Your task to perform on an android device: turn pop-ups on in chrome Image 0: 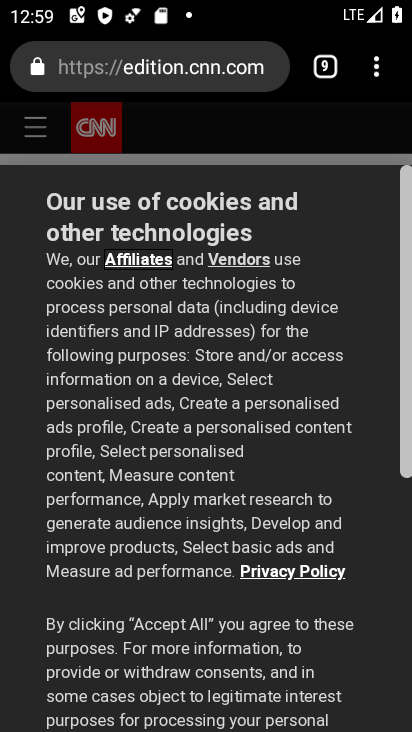
Step 0: press home button
Your task to perform on an android device: turn pop-ups on in chrome Image 1: 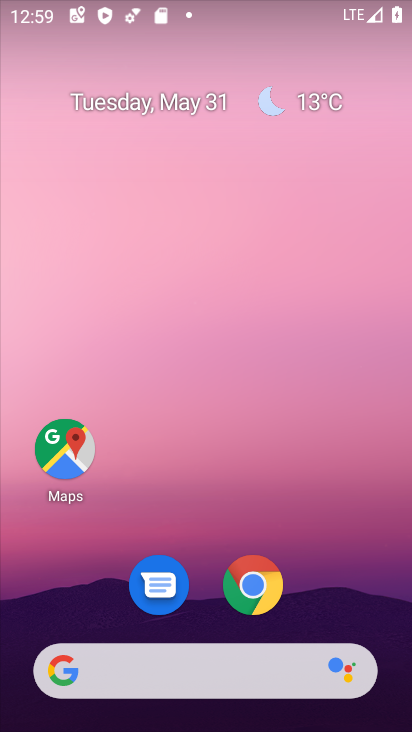
Step 1: click (259, 579)
Your task to perform on an android device: turn pop-ups on in chrome Image 2: 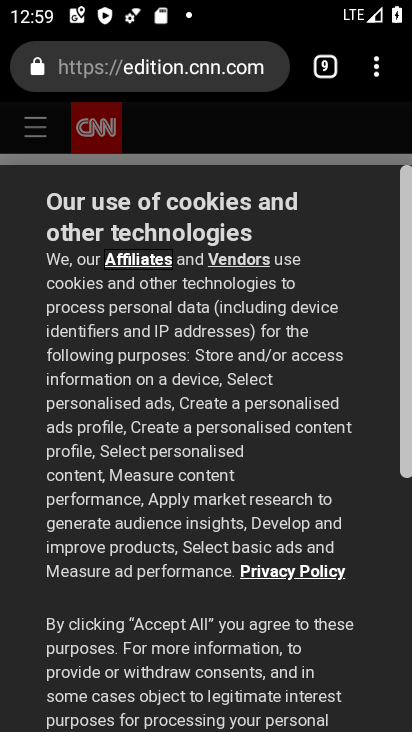
Step 2: click (377, 80)
Your task to perform on an android device: turn pop-ups on in chrome Image 3: 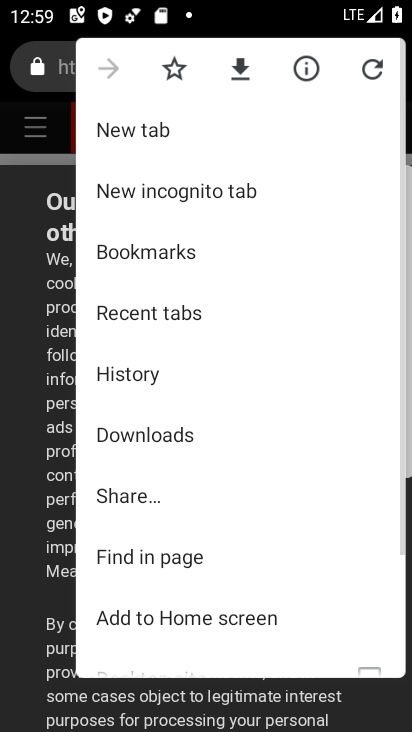
Step 3: drag from (214, 501) to (248, 223)
Your task to perform on an android device: turn pop-ups on in chrome Image 4: 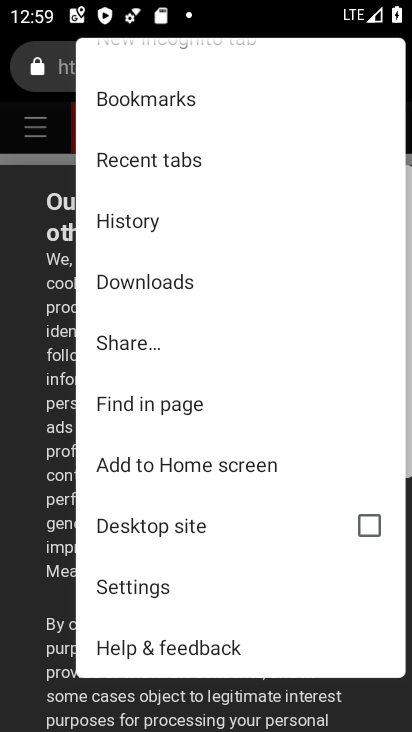
Step 4: click (141, 591)
Your task to perform on an android device: turn pop-ups on in chrome Image 5: 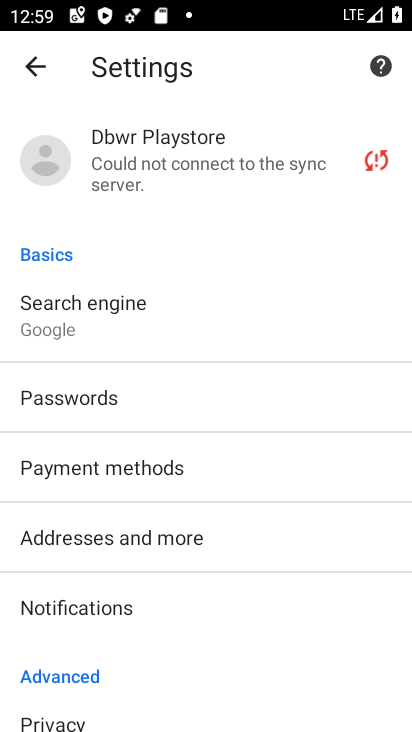
Step 5: drag from (246, 535) to (235, 163)
Your task to perform on an android device: turn pop-ups on in chrome Image 6: 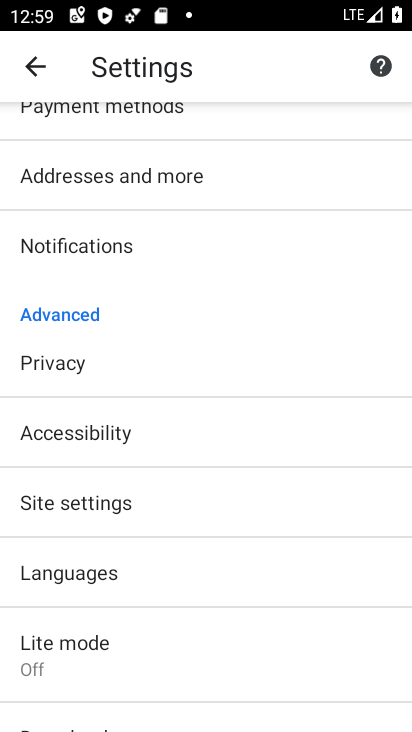
Step 6: click (205, 507)
Your task to perform on an android device: turn pop-ups on in chrome Image 7: 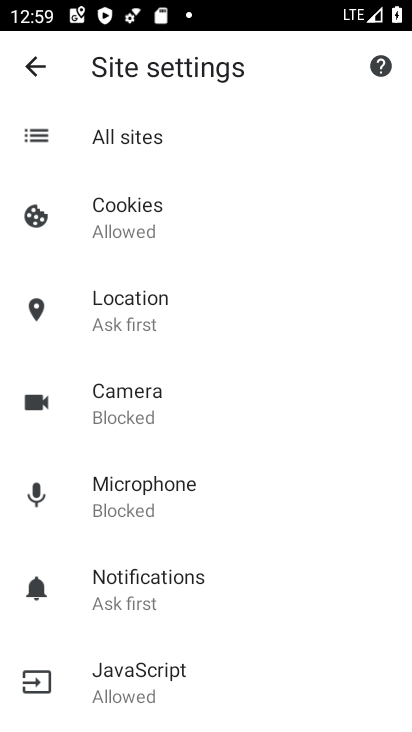
Step 7: drag from (256, 623) to (243, 360)
Your task to perform on an android device: turn pop-ups on in chrome Image 8: 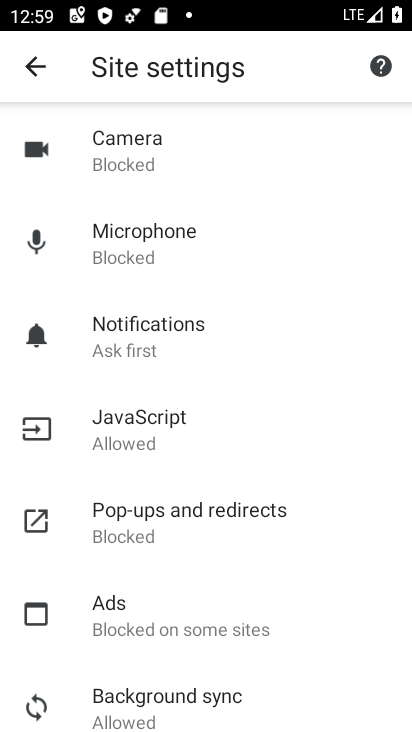
Step 8: click (234, 523)
Your task to perform on an android device: turn pop-ups on in chrome Image 9: 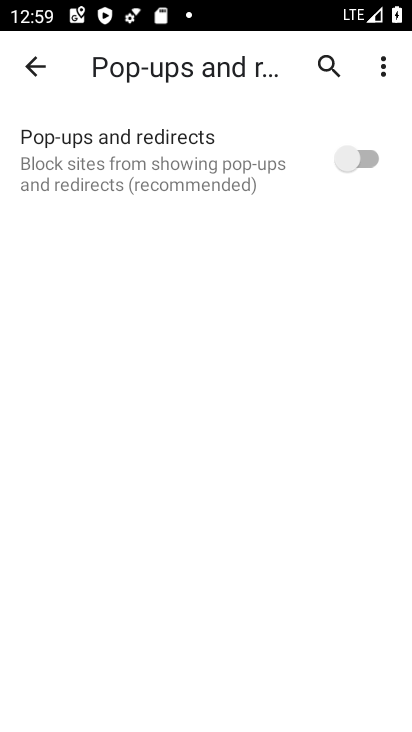
Step 9: click (359, 150)
Your task to perform on an android device: turn pop-ups on in chrome Image 10: 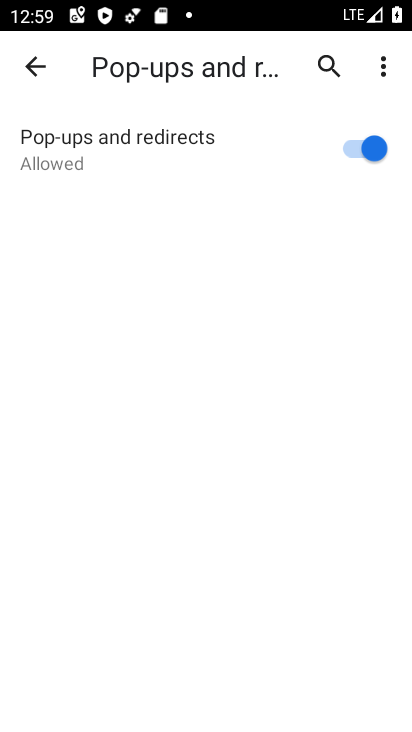
Step 10: task complete